Your task to perform on an android device: What's the weather today? Image 0: 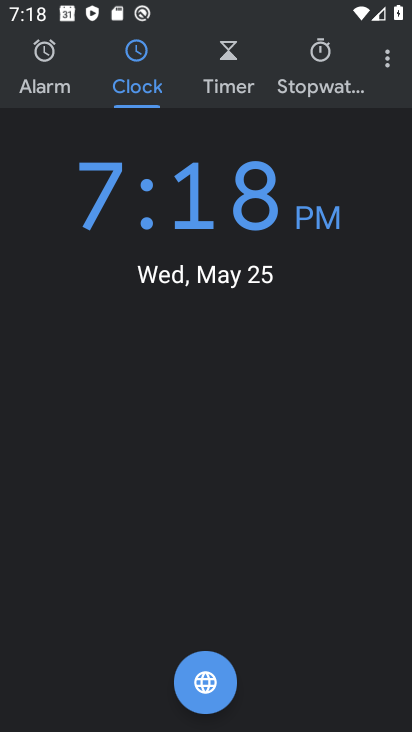
Step 0: press back button
Your task to perform on an android device: What's the weather today? Image 1: 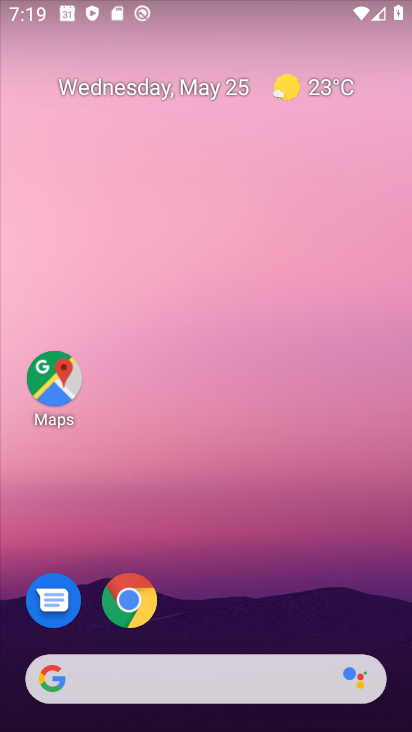
Step 1: drag from (232, 531) to (175, 160)
Your task to perform on an android device: What's the weather today? Image 2: 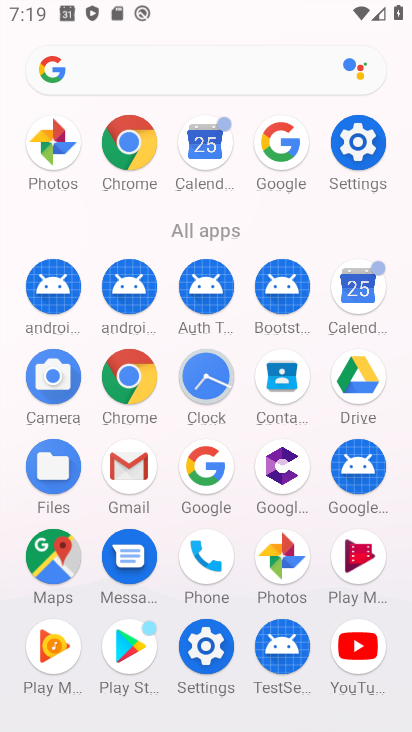
Step 2: click (276, 142)
Your task to perform on an android device: What's the weather today? Image 3: 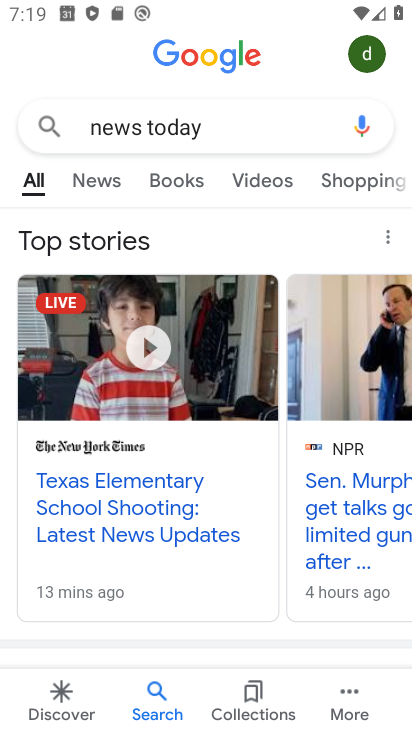
Step 3: click (286, 135)
Your task to perform on an android device: What's the weather today? Image 4: 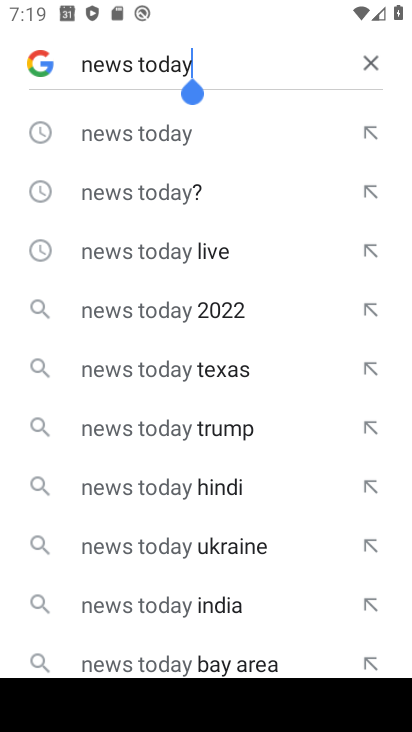
Step 4: click (366, 62)
Your task to perform on an android device: What's the weather today? Image 5: 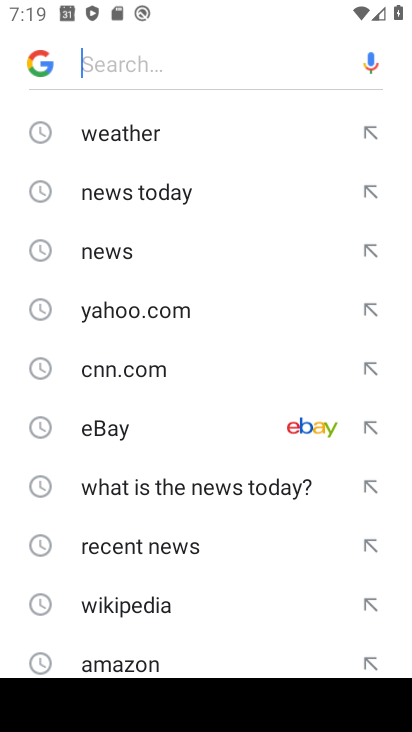
Step 5: click (142, 140)
Your task to perform on an android device: What's the weather today? Image 6: 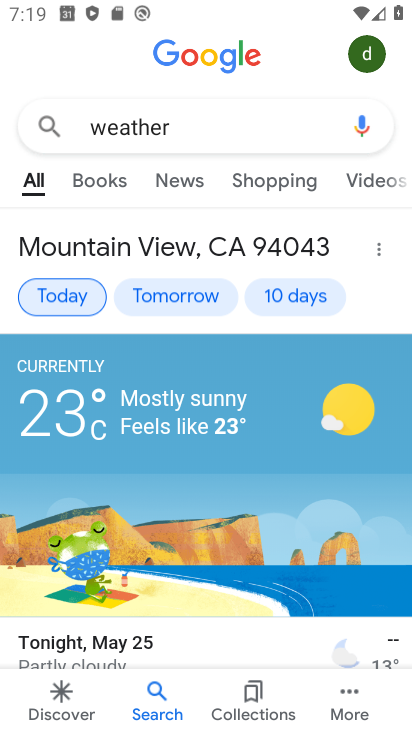
Step 6: task complete